Your task to perform on an android device: Open calendar and show me the second week of next month Image 0: 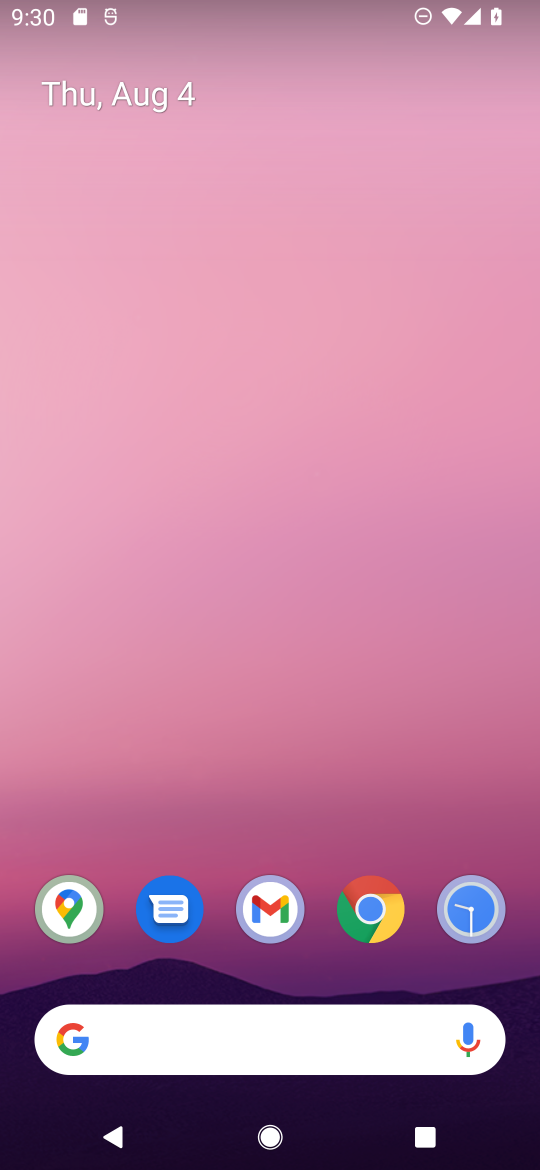
Step 0: drag from (306, 825) to (337, 269)
Your task to perform on an android device: Open calendar and show me the second week of next month Image 1: 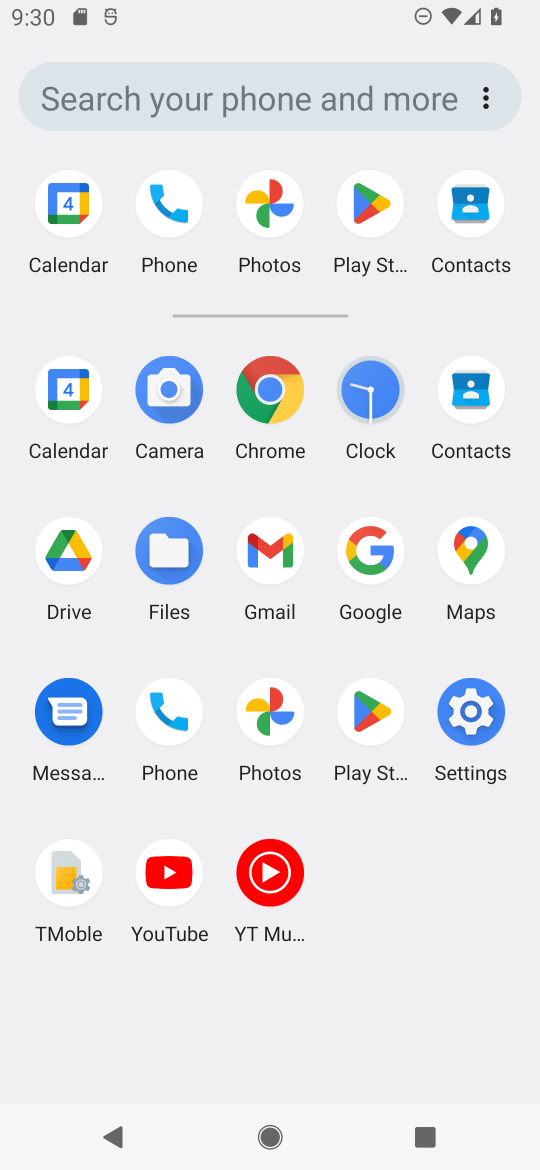
Step 1: click (67, 387)
Your task to perform on an android device: Open calendar and show me the second week of next month Image 2: 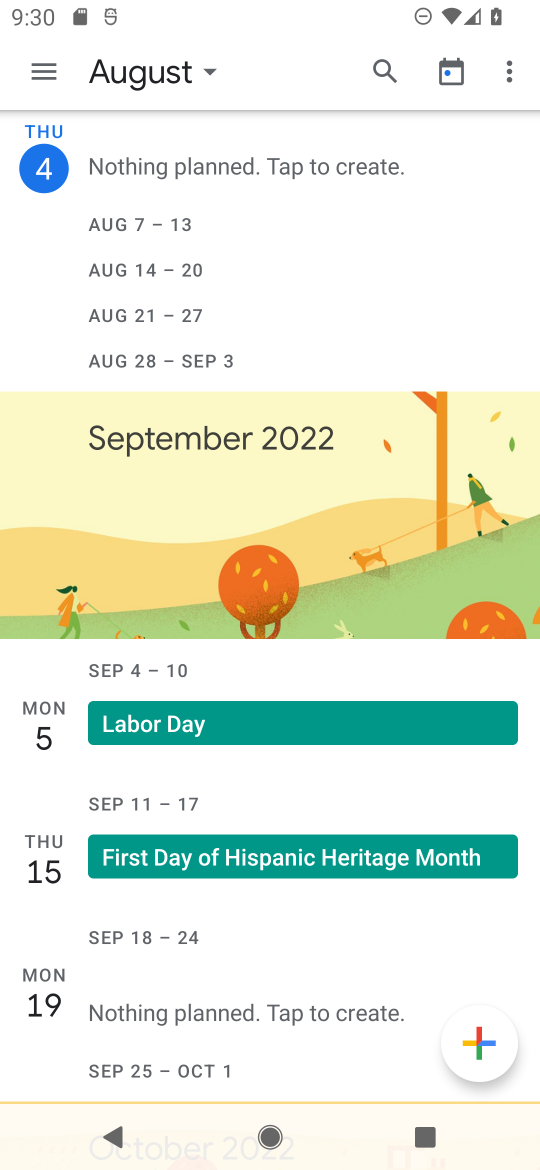
Step 2: click (208, 72)
Your task to perform on an android device: Open calendar and show me the second week of next month Image 3: 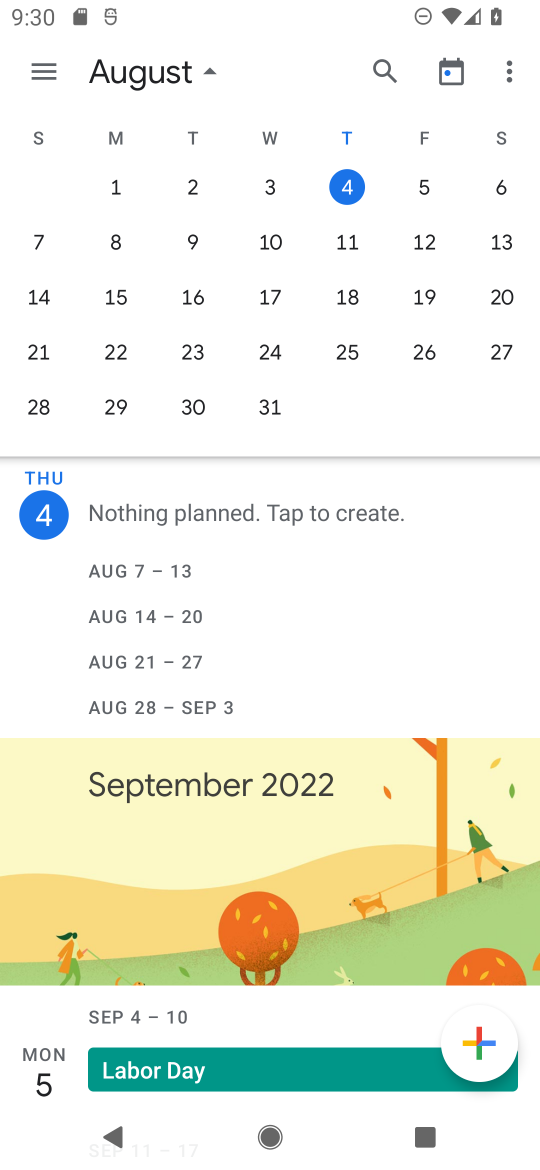
Step 3: drag from (523, 270) to (180, 245)
Your task to perform on an android device: Open calendar and show me the second week of next month Image 4: 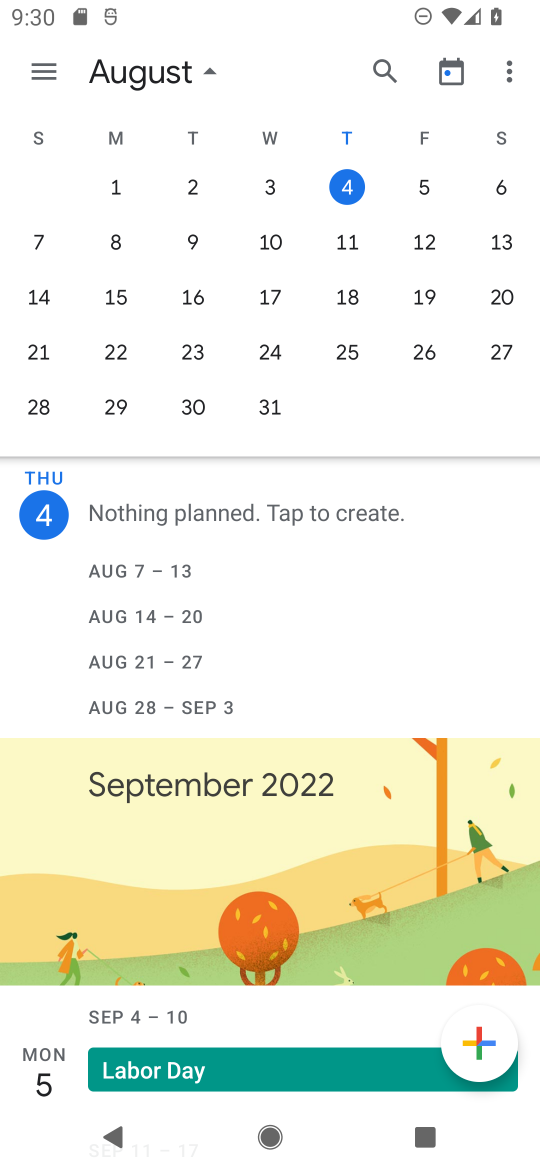
Step 4: drag from (516, 207) to (0, 211)
Your task to perform on an android device: Open calendar and show me the second week of next month Image 5: 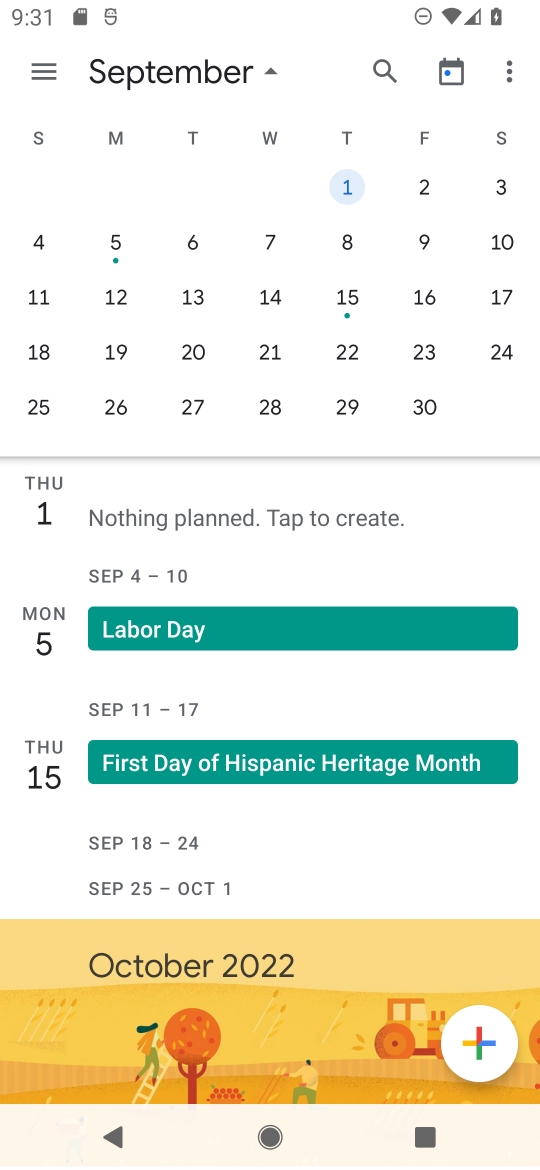
Step 5: click (115, 241)
Your task to perform on an android device: Open calendar and show me the second week of next month Image 6: 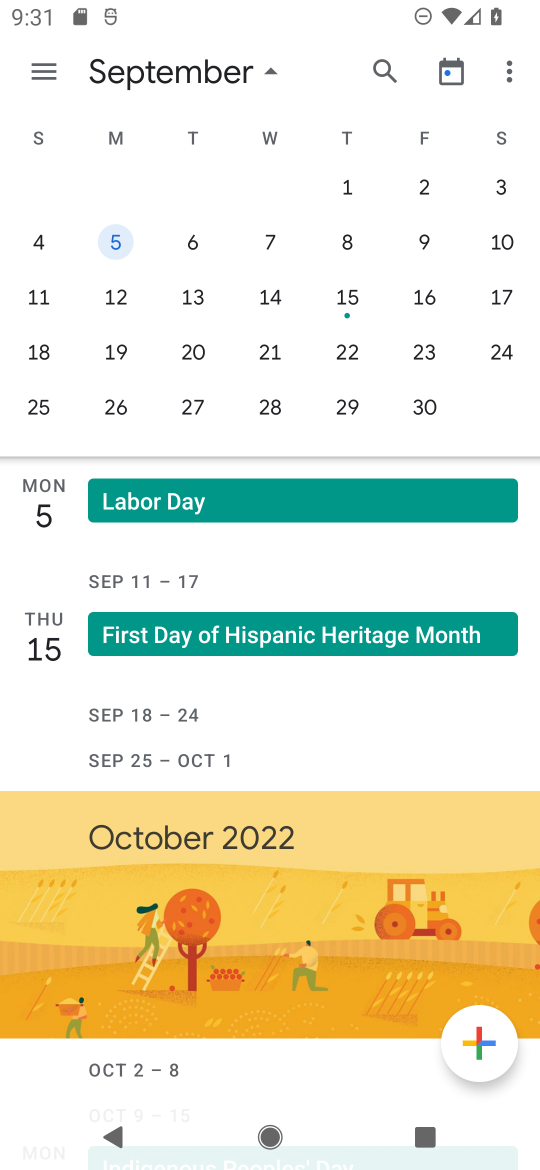
Step 6: task complete